Your task to perform on an android device: Open internet settings Image 0: 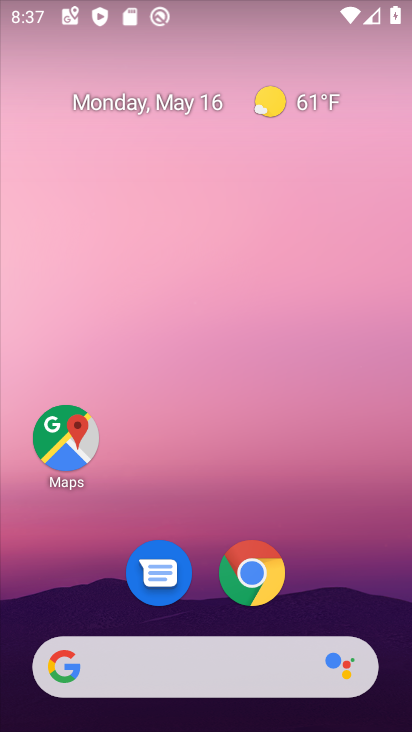
Step 0: drag from (204, 724) to (187, 271)
Your task to perform on an android device: Open internet settings Image 1: 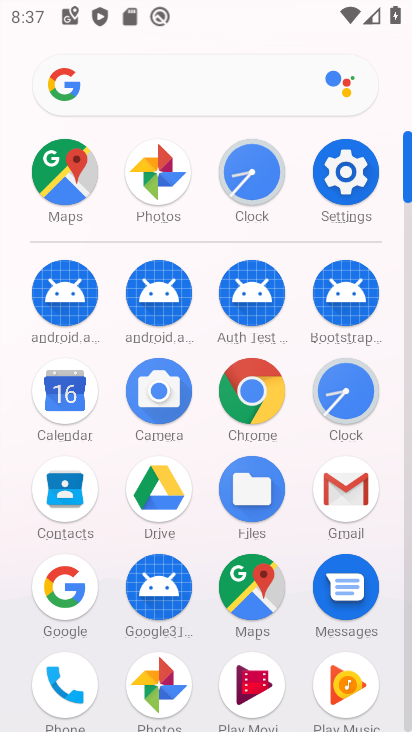
Step 1: click (338, 171)
Your task to perform on an android device: Open internet settings Image 2: 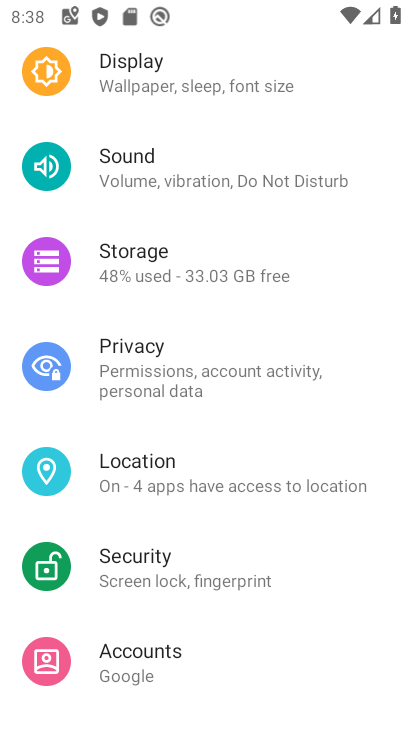
Step 2: drag from (201, 155) to (177, 526)
Your task to perform on an android device: Open internet settings Image 3: 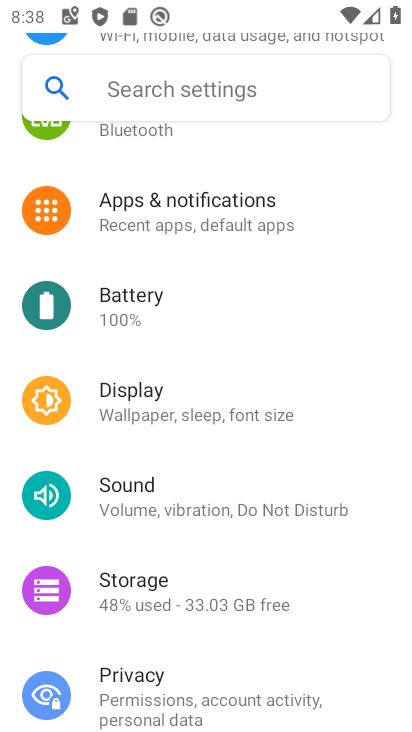
Step 3: drag from (204, 319) to (193, 547)
Your task to perform on an android device: Open internet settings Image 4: 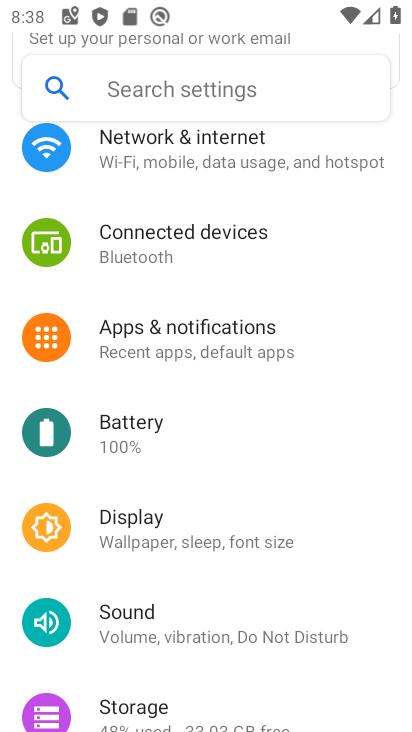
Step 4: drag from (195, 232) to (184, 562)
Your task to perform on an android device: Open internet settings Image 5: 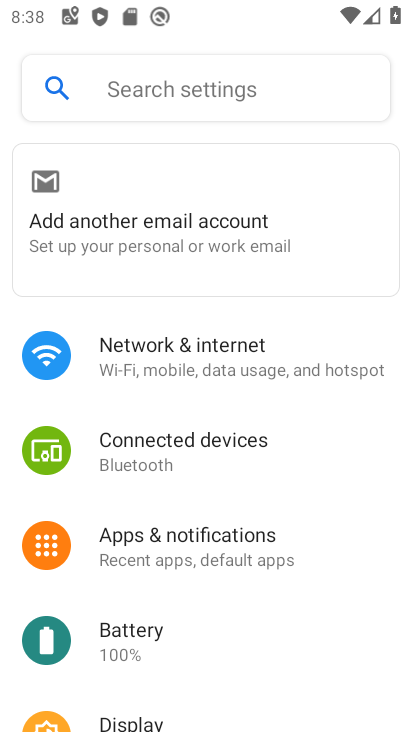
Step 5: click (162, 360)
Your task to perform on an android device: Open internet settings Image 6: 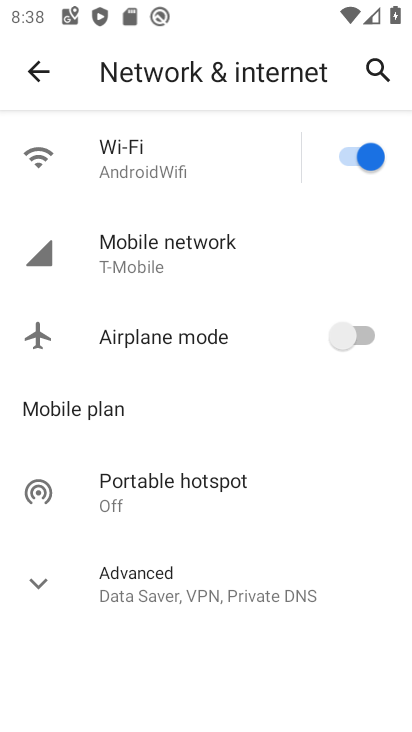
Step 6: task complete